Your task to perform on an android device: Open calendar and show me the fourth week of next month Image 0: 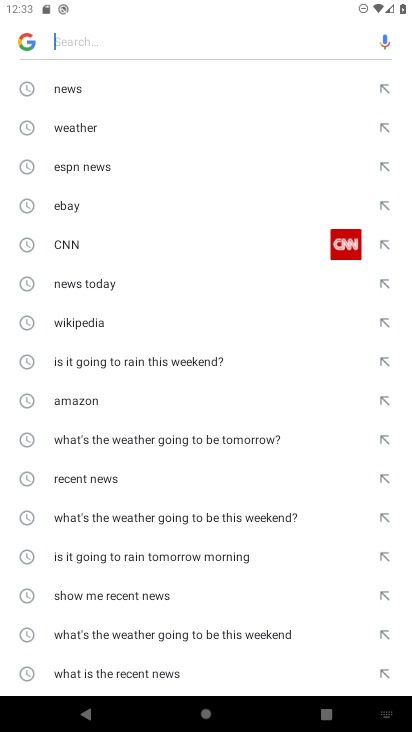
Step 0: press home button
Your task to perform on an android device: Open calendar and show me the fourth week of next month Image 1: 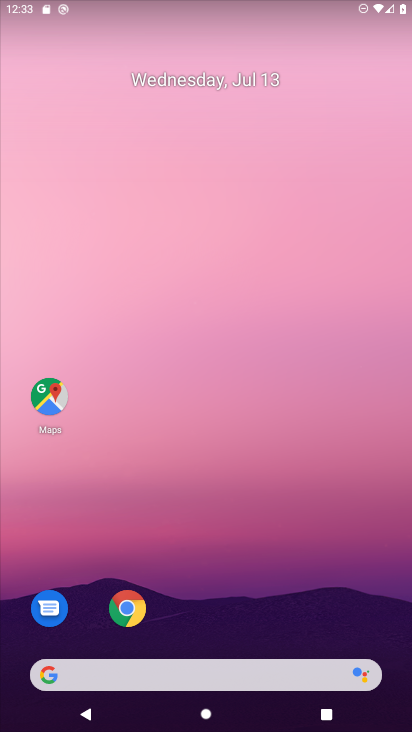
Step 1: click (229, 77)
Your task to perform on an android device: Open calendar and show me the fourth week of next month Image 2: 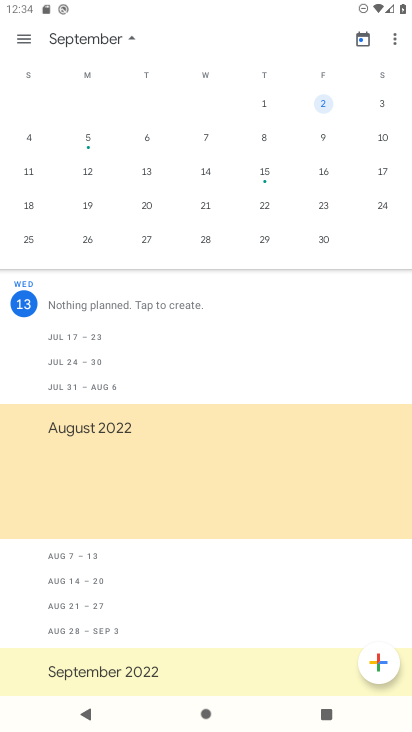
Step 2: drag from (262, 2) to (252, 663)
Your task to perform on an android device: Open calendar and show me the fourth week of next month Image 3: 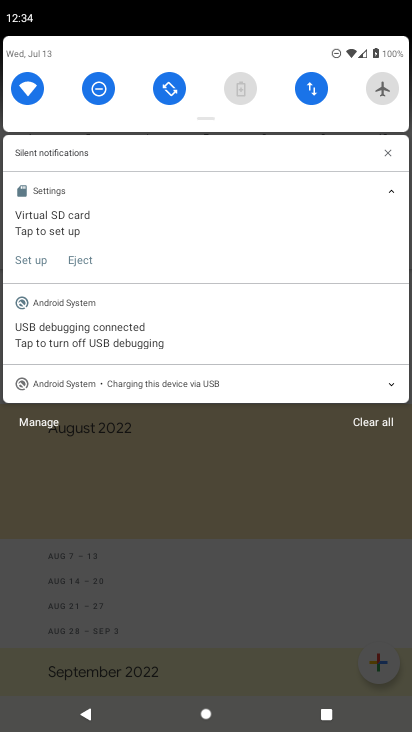
Step 3: press home button
Your task to perform on an android device: Open calendar and show me the fourth week of next month Image 4: 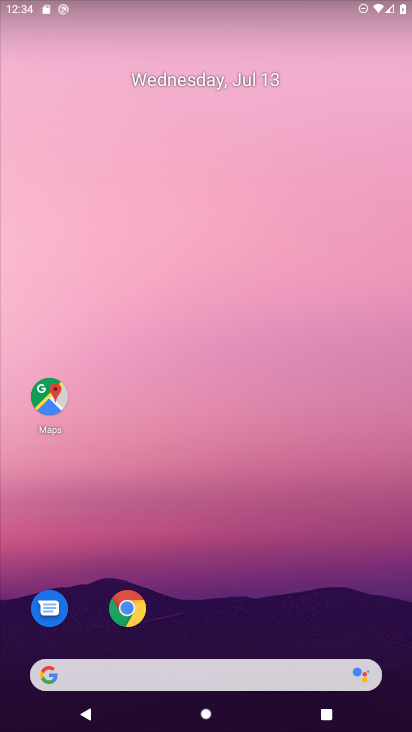
Step 4: click (209, 74)
Your task to perform on an android device: Open calendar and show me the fourth week of next month Image 5: 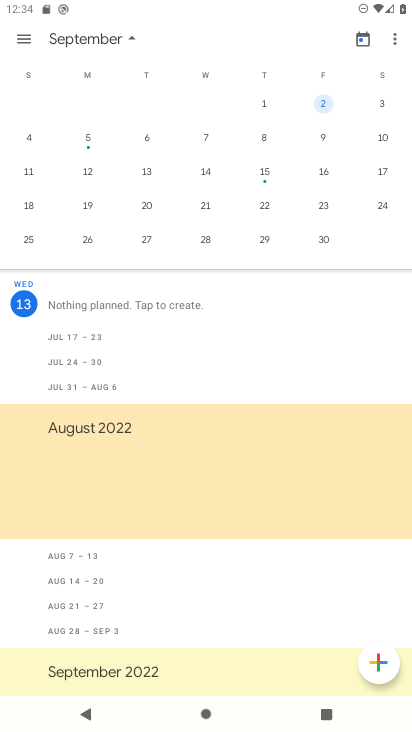
Step 5: drag from (14, 166) to (358, 253)
Your task to perform on an android device: Open calendar and show me the fourth week of next month Image 6: 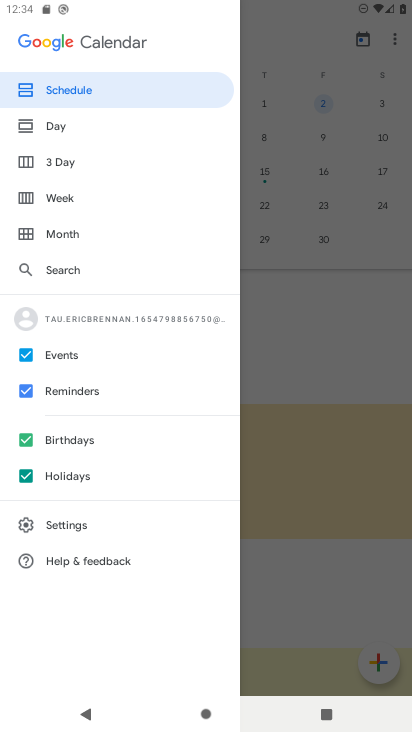
Step 6: click (331, 199)
Your task to perform on an android device: Open calendar and show me the fourth week of next month Image 7: 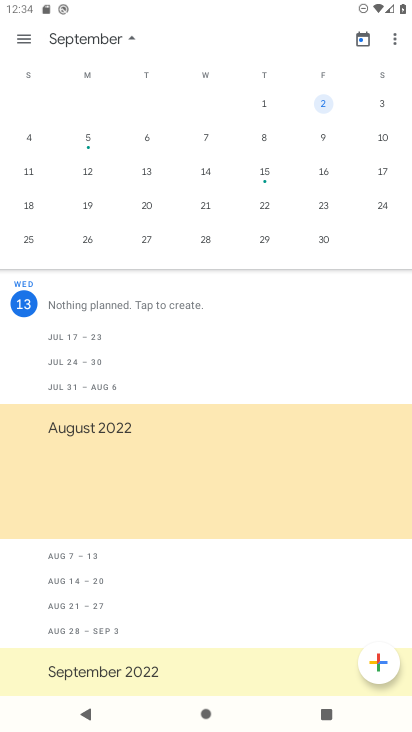
Step 7: drag from (21, 238) to (359, 216)
Your task to perform on an android device: Open calendar and show me the fourth week of next month Image 8: 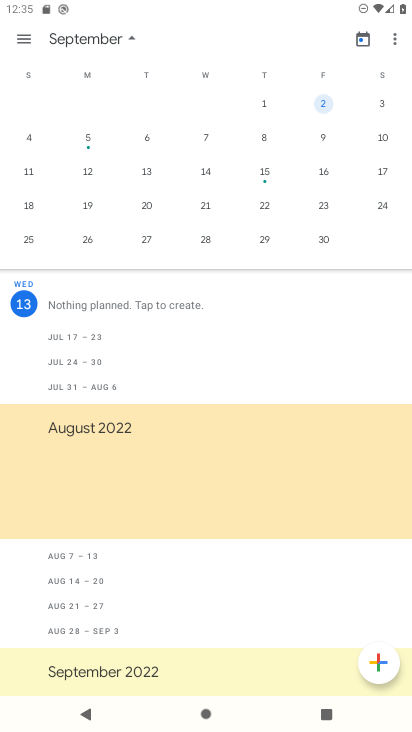
Step 8: drag from (57, 188) to (384, 158)
Your task to perform on an android device: Open calendar and show me the fourth week of next month Image 9: 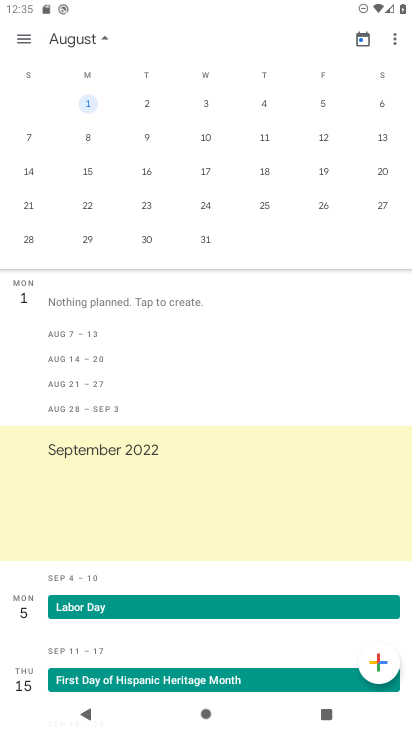
Step 9: drag from (17, 213) to (297, 184)
Your task to perform on an android device: Open calendar and show me the fourth week of next month Image 10: 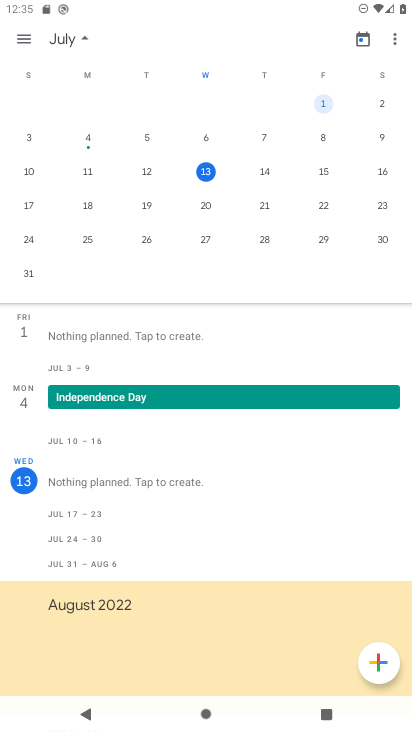
Step 10: drag from (391, 282) to (2, 267)
Your task to perform on an android device: Open calendar and show me the fourth week of next month Image 11: 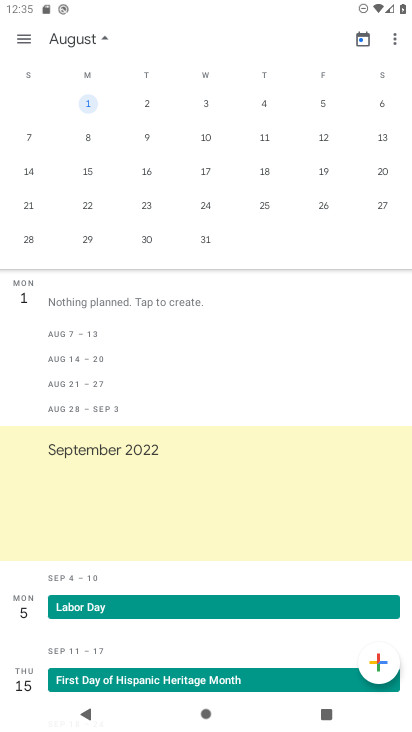
Step 11: drag from (358, 272) to (3, 442)
Your task to perform on an android device: Open calendar and show me the fourth week of next month Image 12: 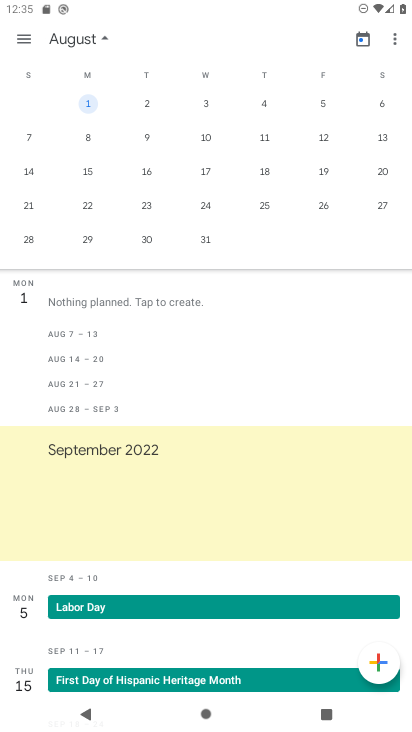
Step 12: click (273, 202)
Your task to perform on an android device: Open calendar and show me the fourth week of next month Image 13: 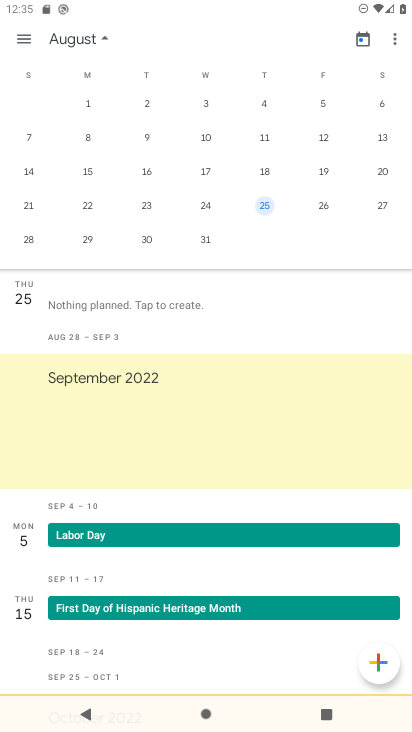
Step 13: task complete